Your task to perform on an android device: install app "DoorDash - Food Delivery" Image 0: 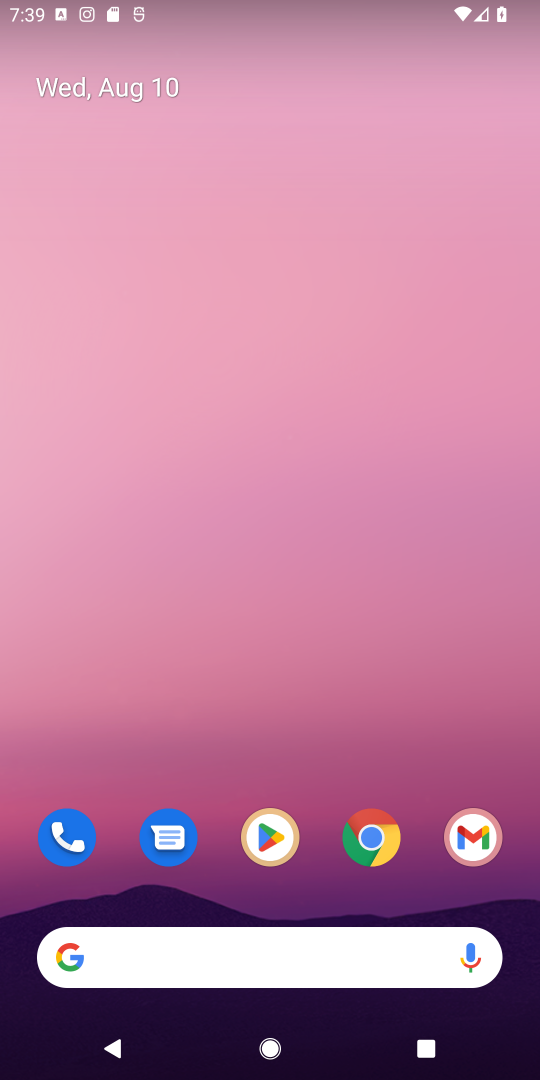
Step 0: click (269, 842)
Your task to perform on an android device: install app "DoorDash - Food Delivery" Image 1: 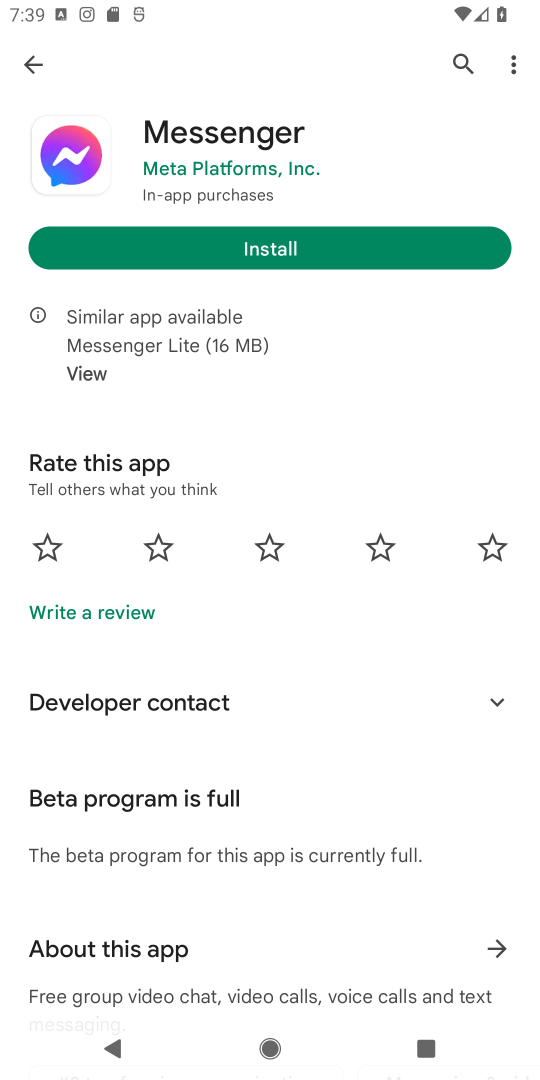
Step 1: click (460, 69)
Your task to perform on an android device: install app "DoorDash - Food Delivery" Image 2: 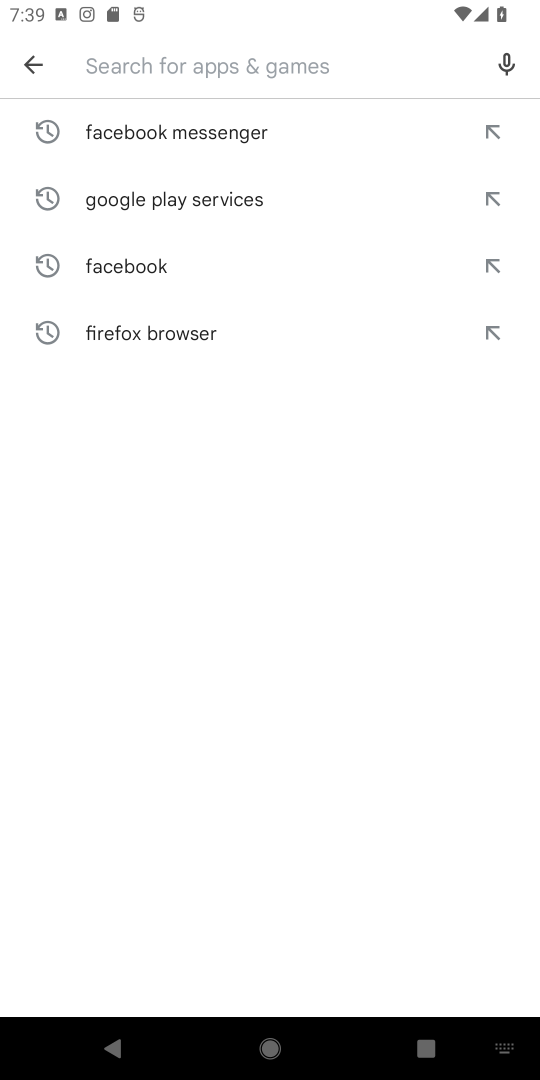
Step 2: type "DoorDash - Food Delivery"
Your task to perform on an android device: install app "DoorDash - Food Delivery" Image 3: 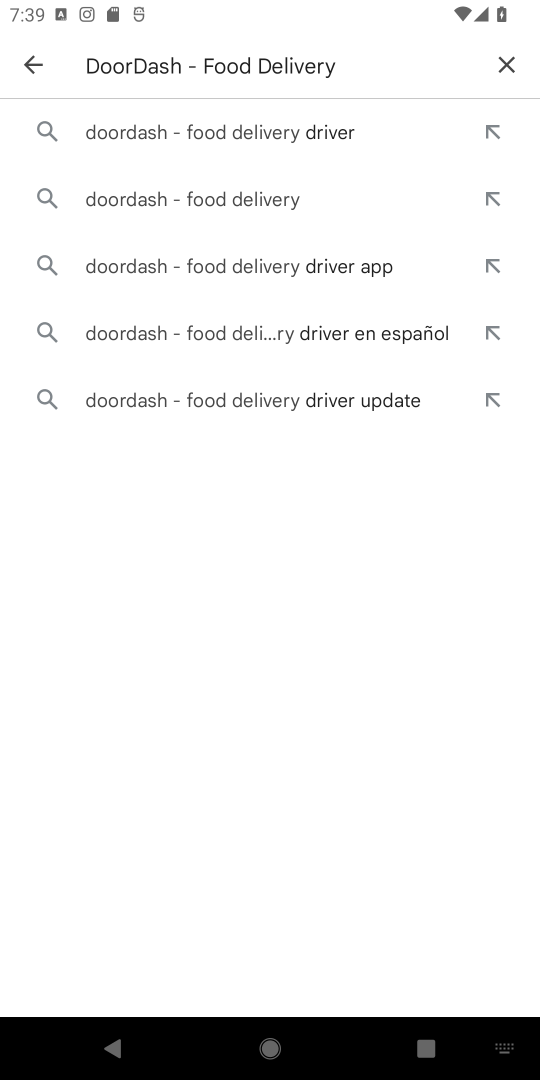
Step 3: click (180, 134)
Your task to perform on an android device: install app "DoorDash - Food Delivery" Image 4: 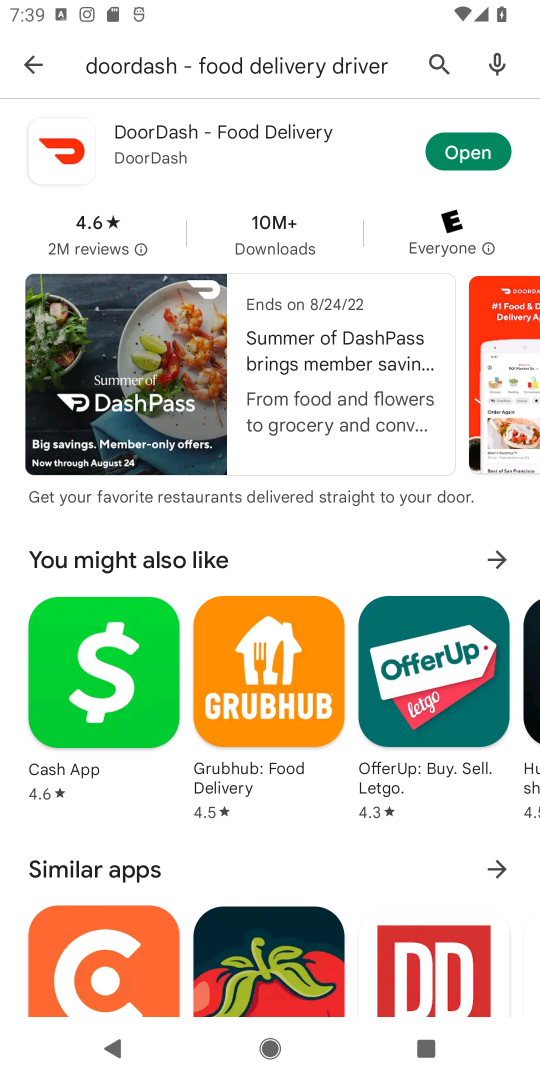
Step 4: task complete